Your task to perform on an android device: Show me recent news Image 0: 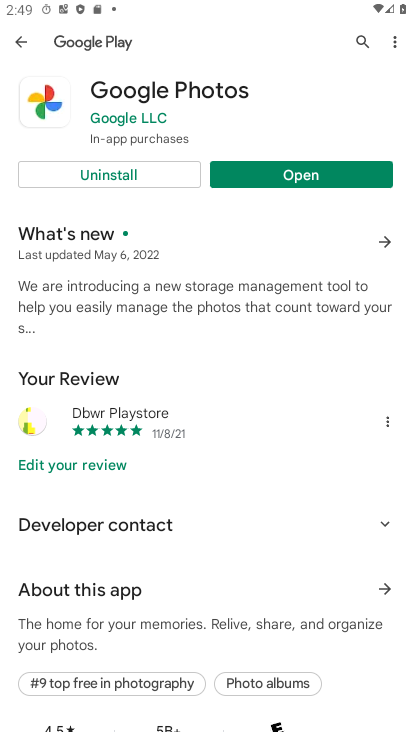
Step 0: press home button
Your task to perform on an android device: Show me recent news Image 1: 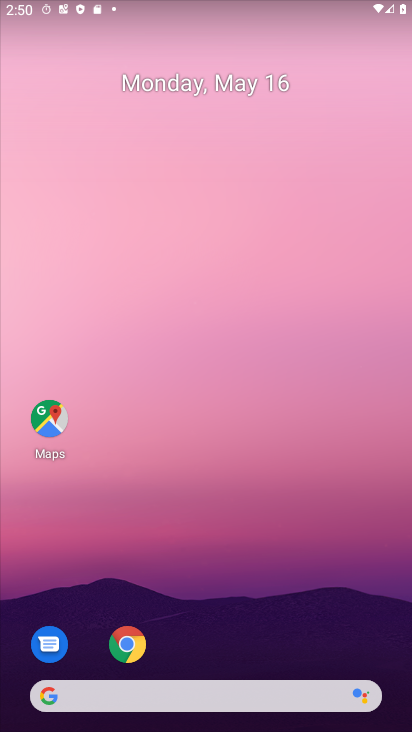
Step 1: drag from (192, 615) to (290, 65)
Your task to perform on an android device: Show me recent news Image 2: 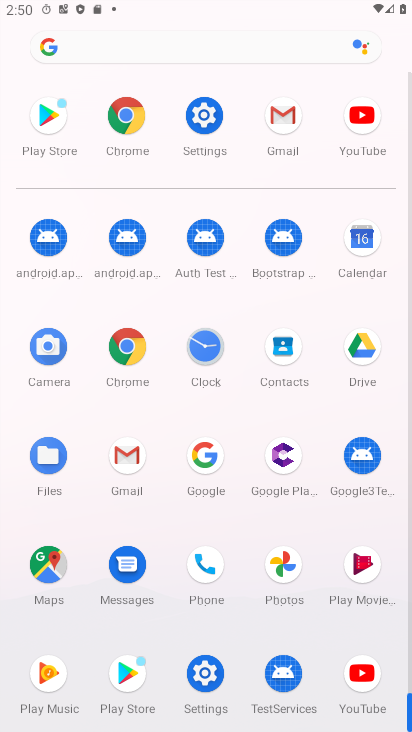
Step 2: click (200, 469)
Your task to perform on an android device: Show me recent news Image 3: 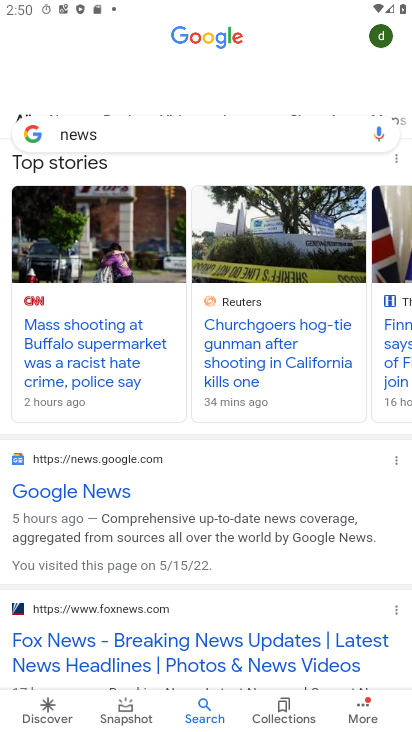
Step 3: task complete